Your task to perform on an android device: Turn off the flashlight Image 0: 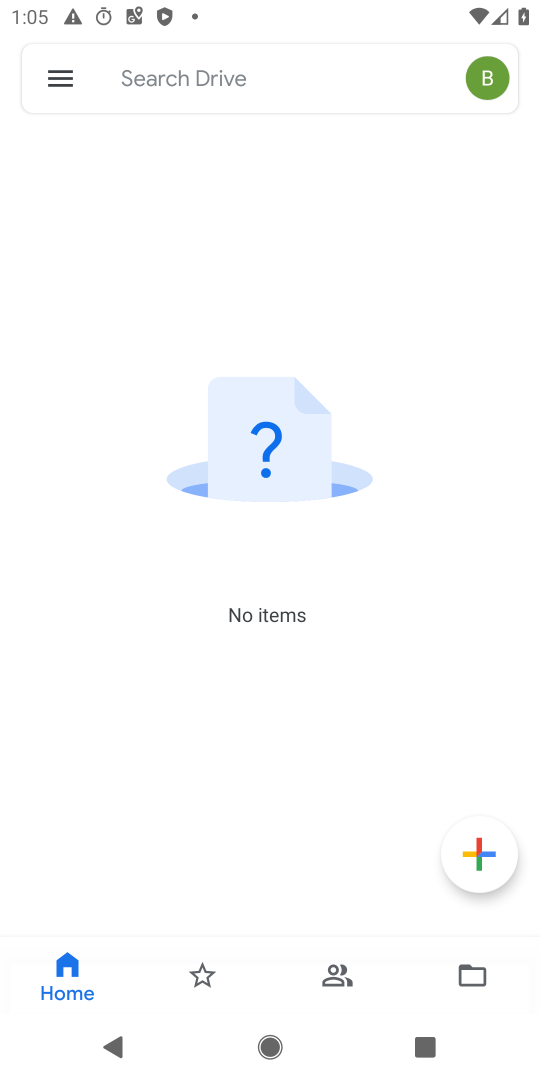
Step 0: press home button
Your task to perform on an android device: Turn off the flashlight Image 1: 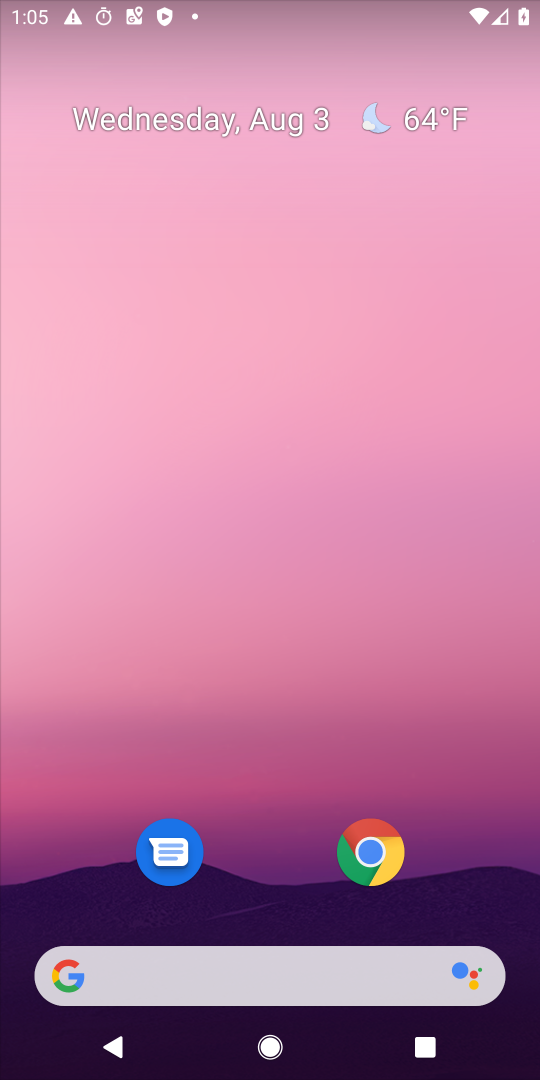
Step 1: drag from (447, 664) to (267, 50)
Your task to perform on an android device: Turn off the flashlight Image 2: 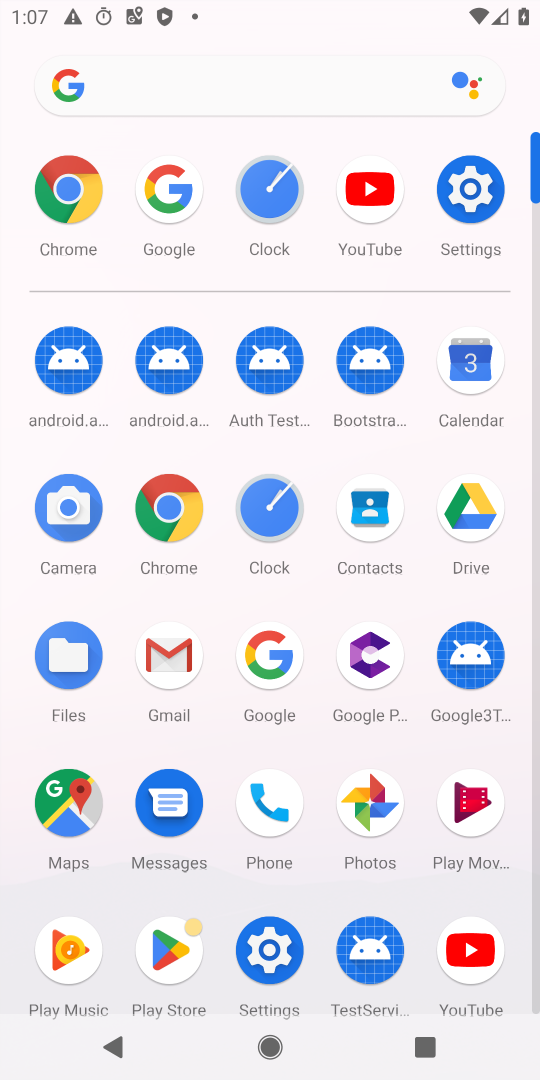
Step 2: click (271, 977)
Your task to perform on an android device: Turn off the flashlight Image 3: 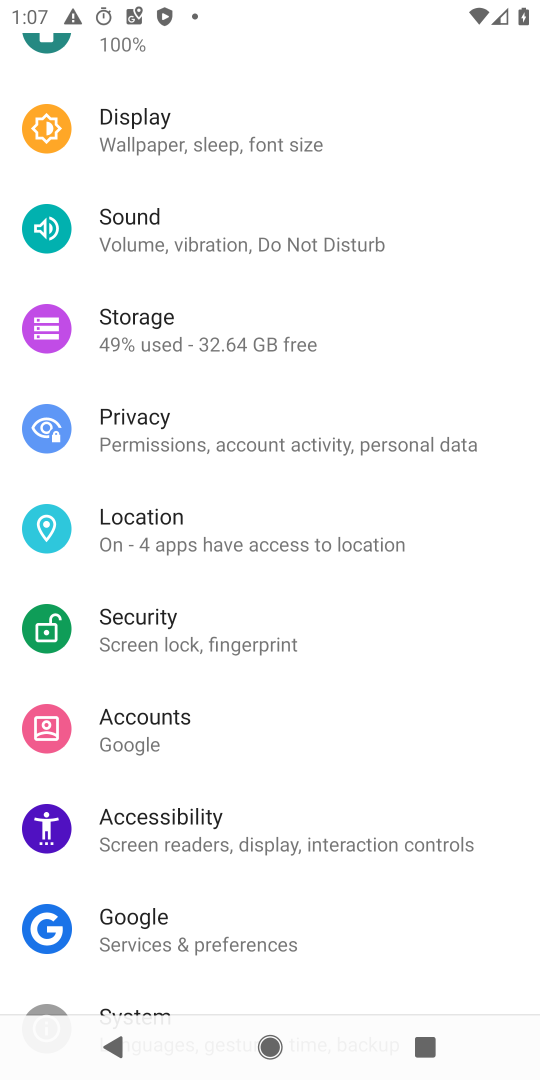
Step 3: task complete